Your task to perform on an android device: turn off notifications in google photos Image 0: 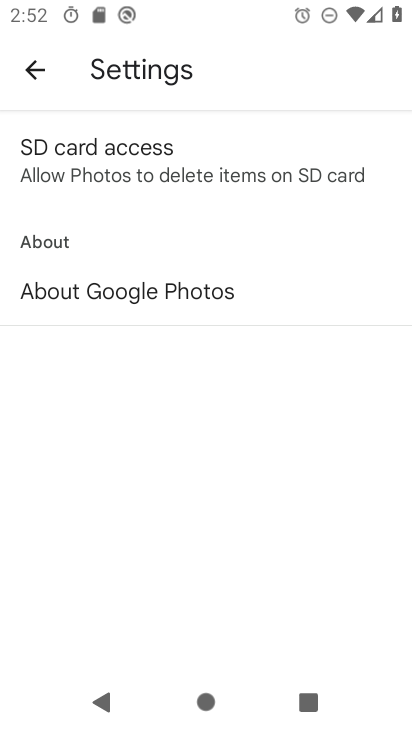
Step 0: click (286, 394)
Your task to perform on an android device: turn off notifications in google photos Image 1: 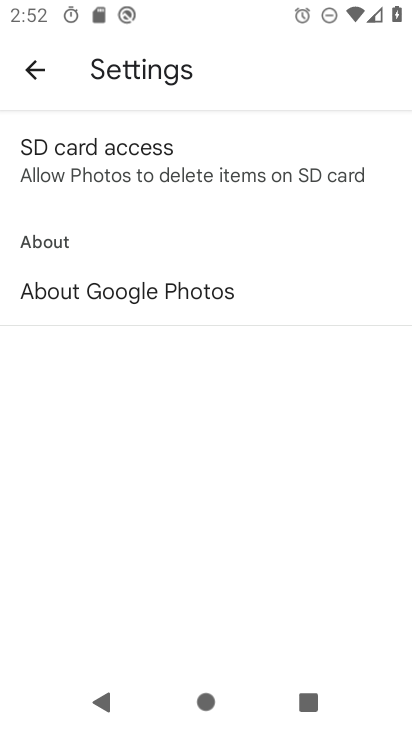
Step 1: press home button
Your task to perform on an android device: turn off notifications in google photos Image 2: 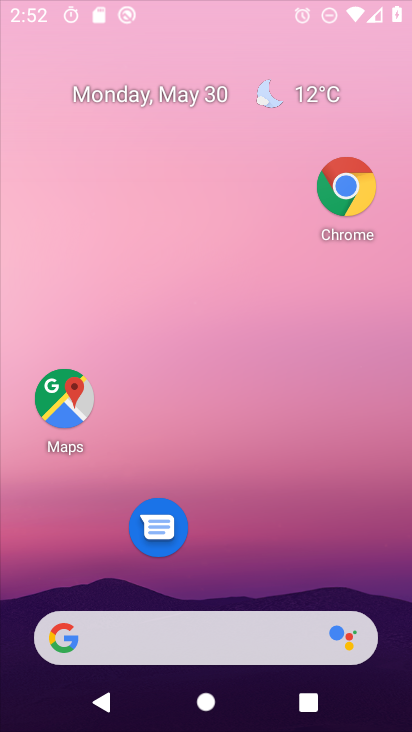
Step 2: drag from (258, 605) to (296, 66)
Your task to perform on an android device: turn off notifications in google photos Image 3: 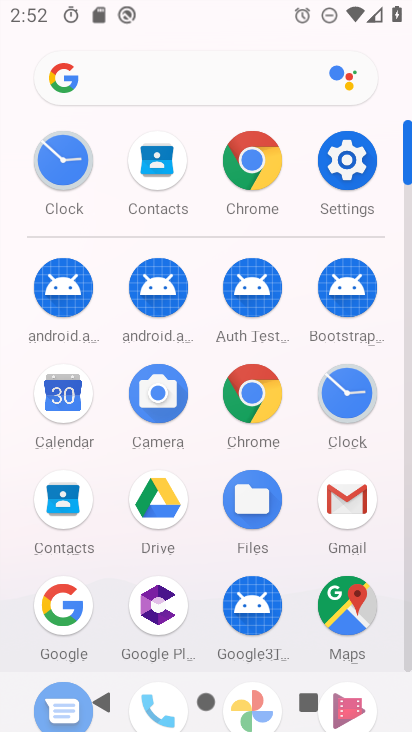
Step 3: drag from (215, 547) to (220, 189)
Your task to perform on an android device: turn off notifications in google photos Image 4: 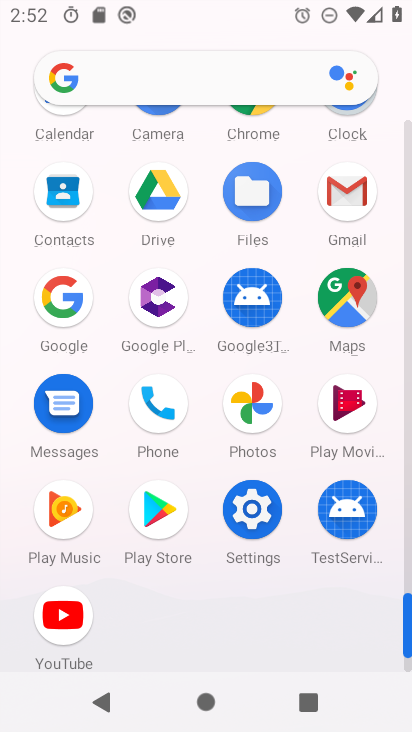
Step 4: click (256, 412)
Your task to perform on an android device: turn off notifications in google photos Image 5: 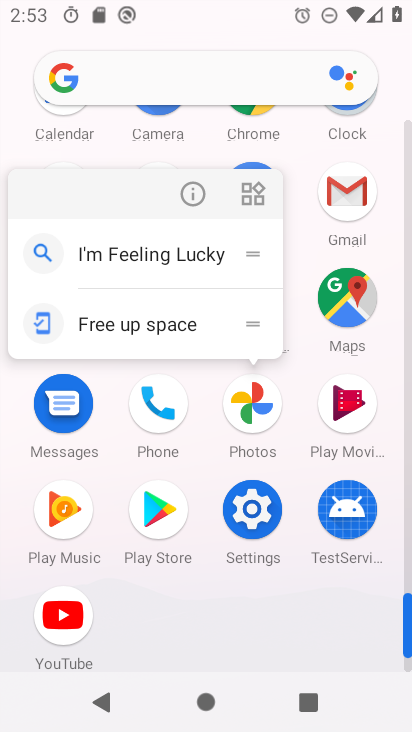
Step 5: click (187, 187)
Your task to perform on an android device: turn off notifications in google photos Image 6: 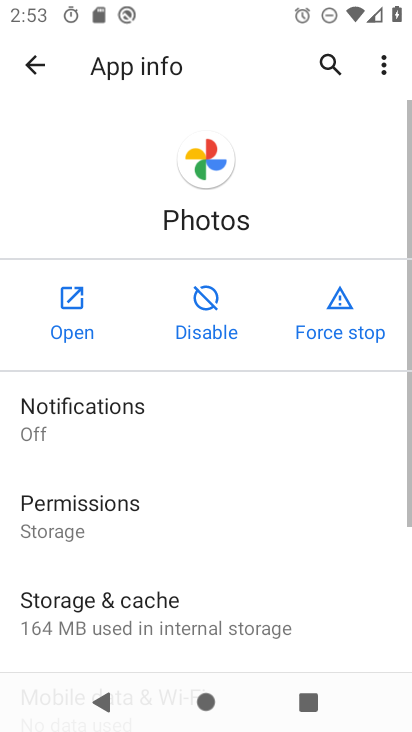
Step 6: click (74, 311)
Your task to perform on an android device: turn off notifications in google photos Image 7: 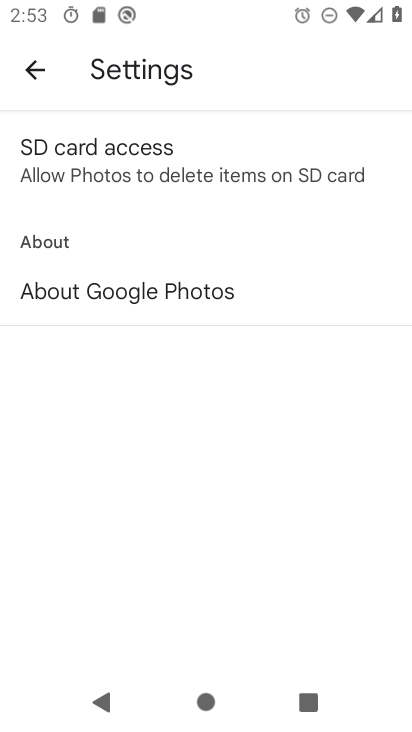
Step 7: click (19, 53)
Your task to perform on an android device: turn off notifications in google photos Image 8: 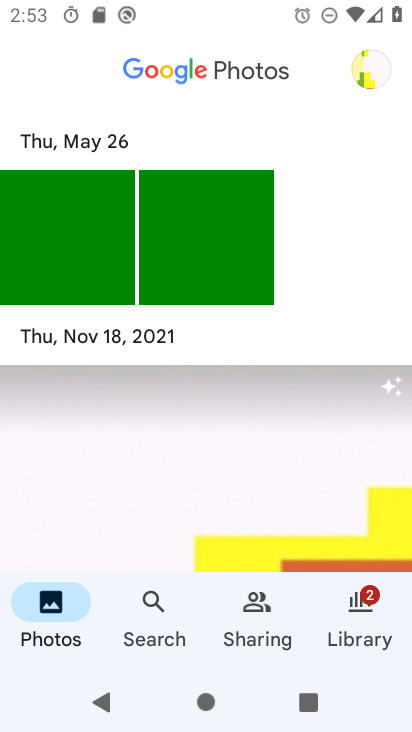
Step 8: drag from (240, 484) to (306, 240)
Your task to perform on an android device: turn off notifications in google photos Image 9: 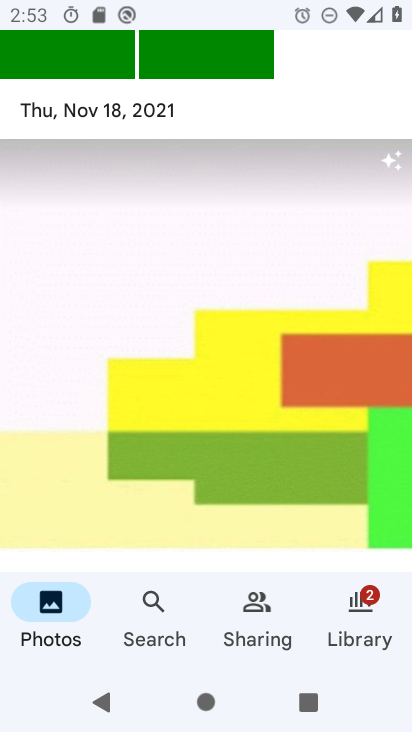
Step 9: drag from (266, 416) to (304, 129)
Your task to perform on an android device: turn off notifications in google photos Image 10: 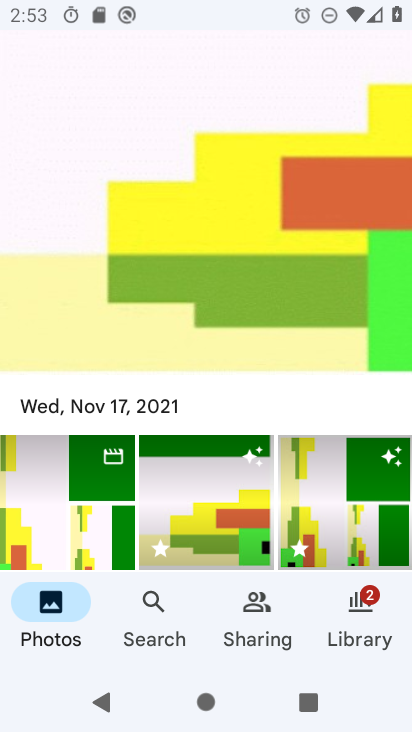
Step 10: click (233, 494)
Your task to perform on an android device: turn off notifications in google photos Image 11: 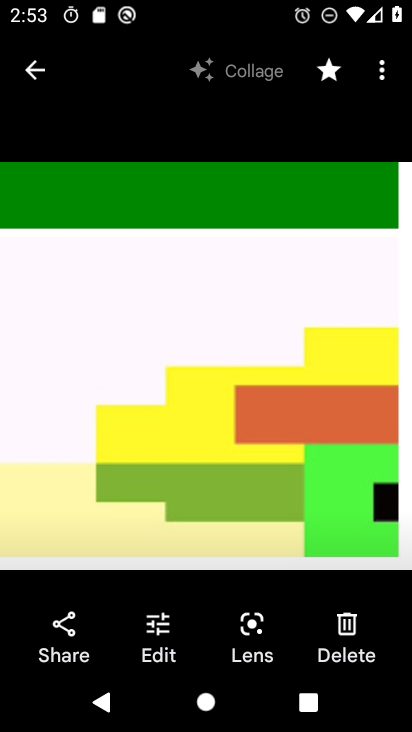
Step 11: drag from (353, 460) to (39, 484)
Your task to perform on an android device: turn off notifications in google photos Image 12: 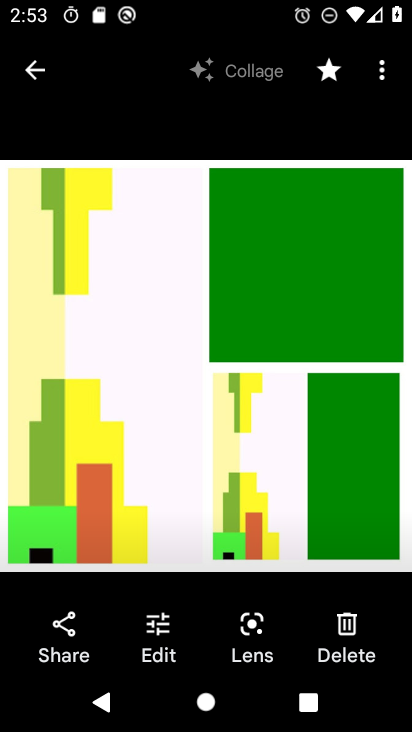
Step 12: click (27, 59)
Your task to perform on an android device: turn off notifications in google photos Image 13: 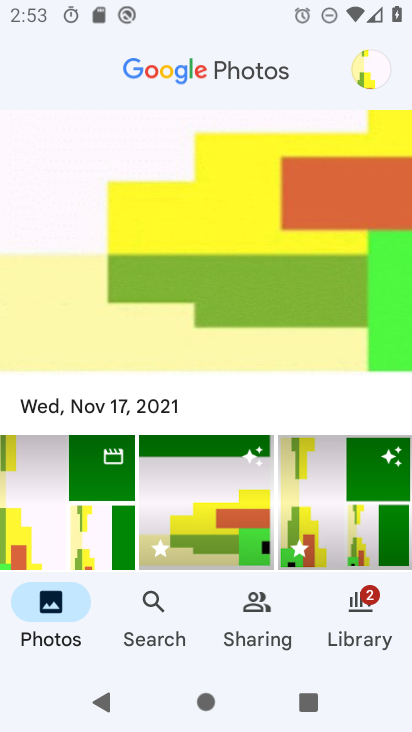
Step 13: click (372, 67)
Your task to perform on an android device: turn off notifications in google photos Image 14: 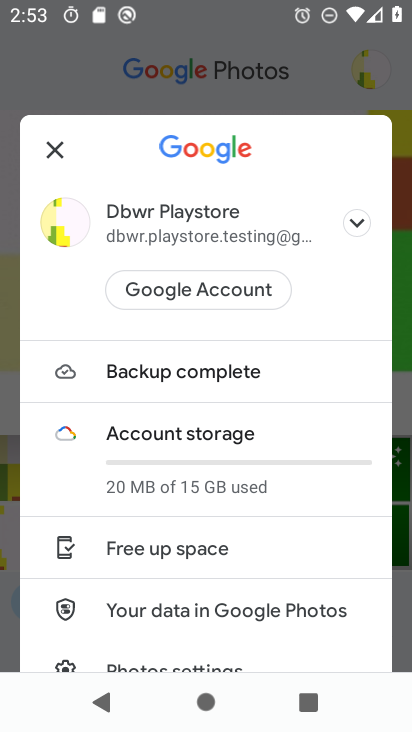
Step 14: drag from (231, 545) to (339, 113)
Your task to perform on an android device: turn off notifications in google photos Image 15: 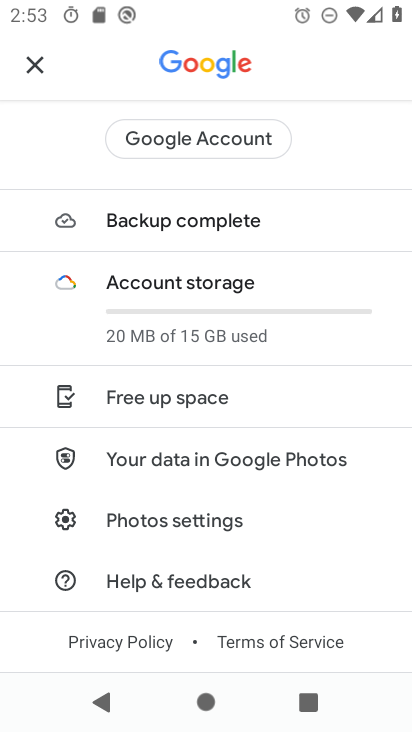
Step 15: click (174, 522)
Your task to perform on an android device: turn off notifications in google photos Image 16: 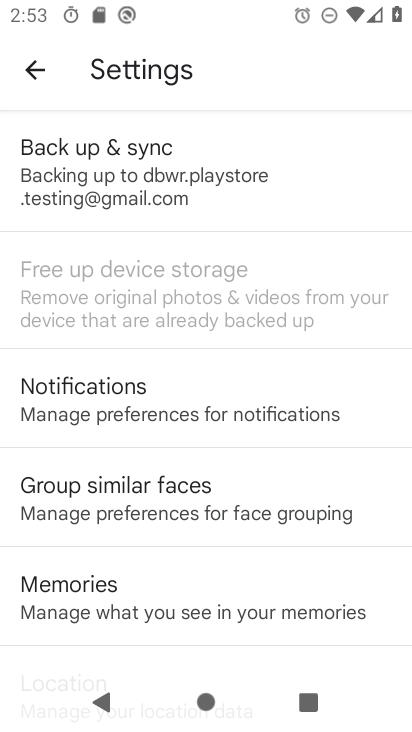
Step 16: click (76, 394)
Your task to perform on an android device: turn off notifications in google photos Image 17: 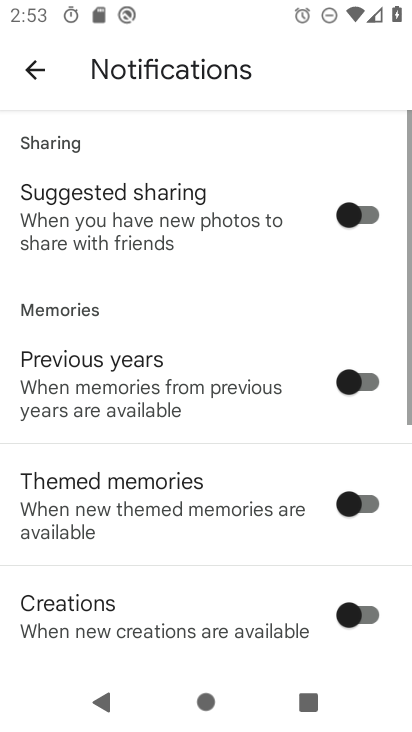
Step 17: drag from (229, 503) to (363, 58)
Your task to perform on an android device: turn off notifications in google photos Image 18: 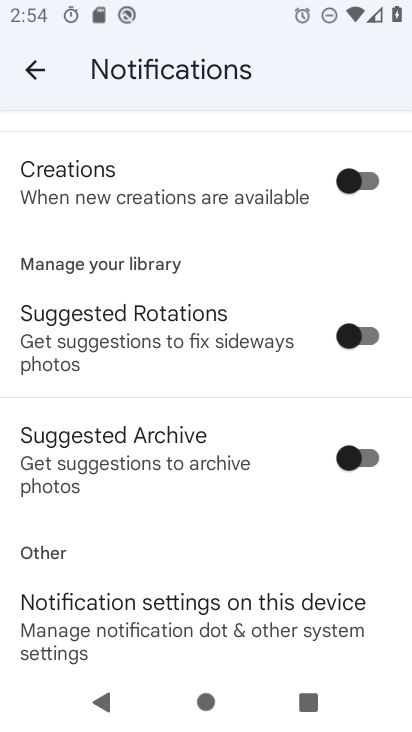
Step 18: drag from (144, 607) to (294, 169)
Your task to perform on an android device: turn off notifications in google photos Image 19: 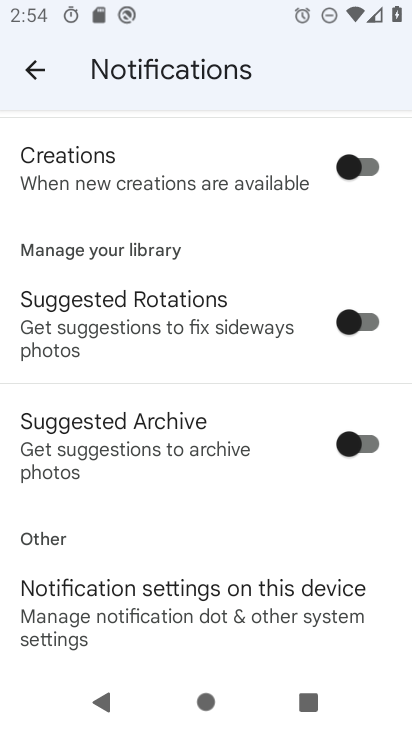
Step 19: click (181, 581)
Your task to perform on an android device: turn off notifications in google photos Image 20: 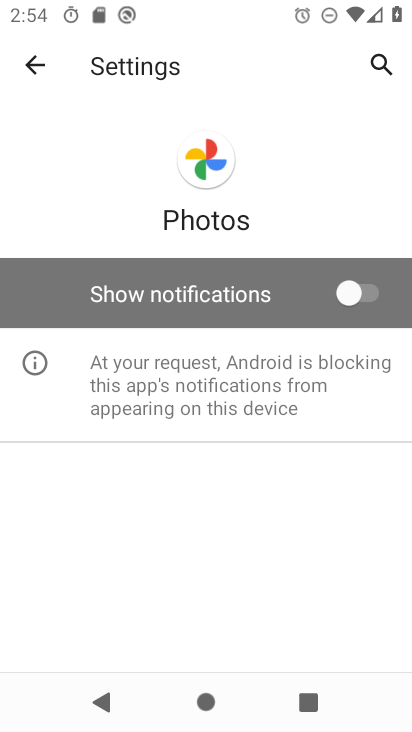
Step 20: task complete